Your task to perform on an android device: Open wifi settings Image 0: 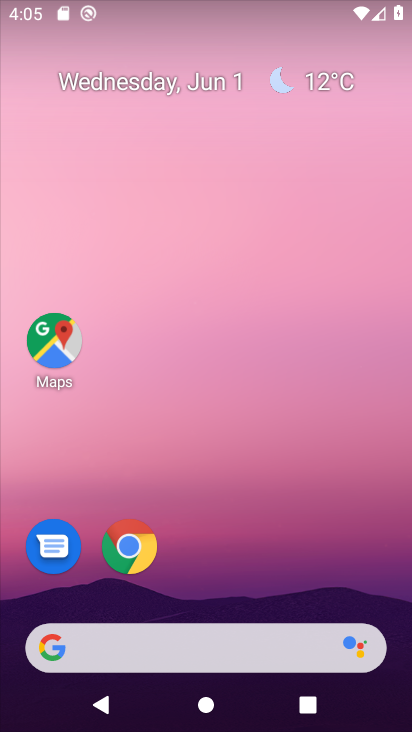
Step 0: click (333, 135)
Your task to perform on an android device: Open wifi settings Image 1: 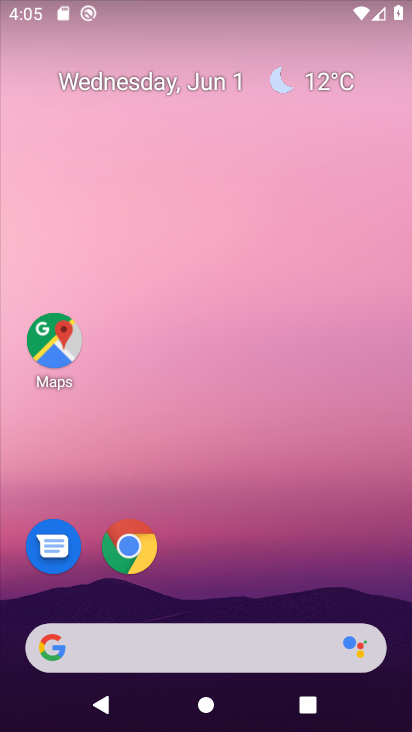
Step 1: drag from (177, 639) to (350, 52)
Your task to perform on an android device: Open wifi settings Image 2: 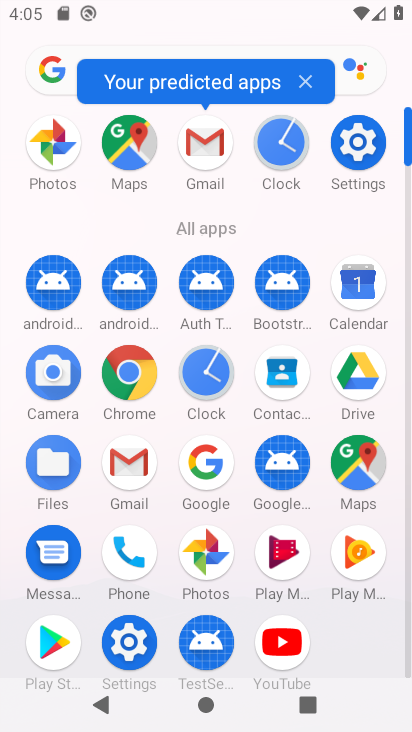
Step 2: click (129, 669)
Your task to perform on an android device: Open wifi settings Image 3: 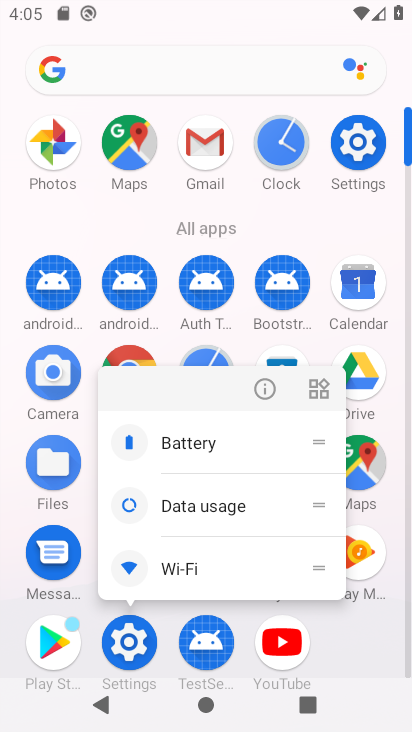
Step 3: click (134, 662)
Your task to perform on an android device: Open wifi settings Image 4: 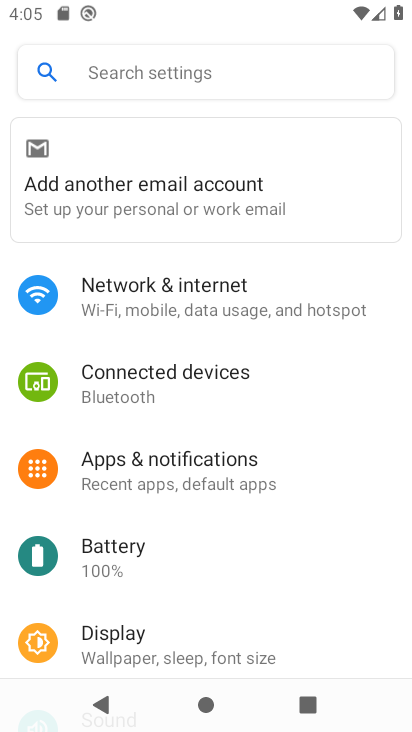
Step 4: click (211, 307)
Your task to perform on an android device: Open wifi settings Image 5: 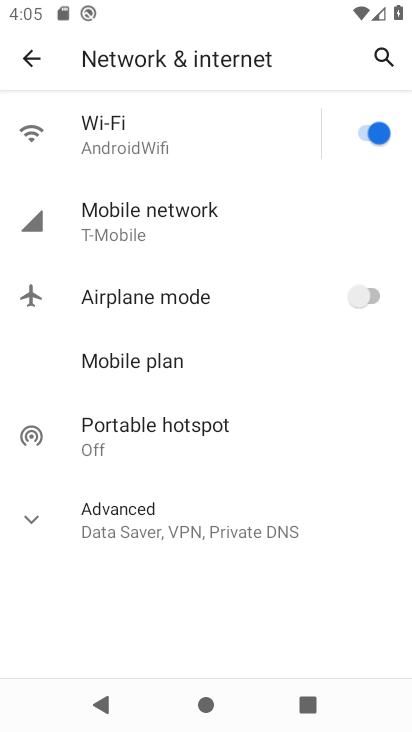
Step 5: click (190, 144)
Your task to perform on an android device: Open wifi settings Image 6: 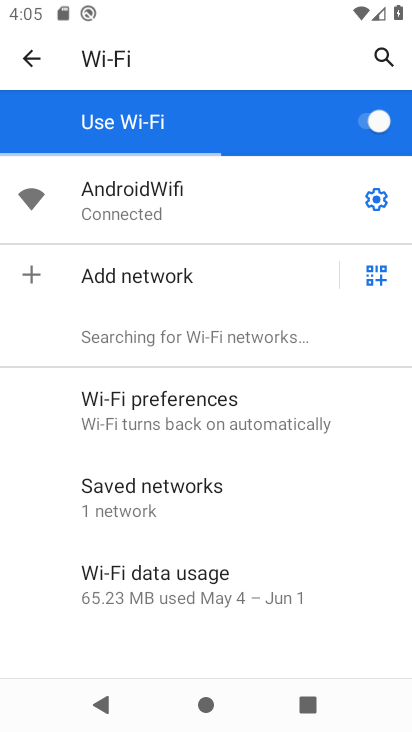
Step 6: task complete